Your task to perform on an android device: Go to wifi settings Image 0: 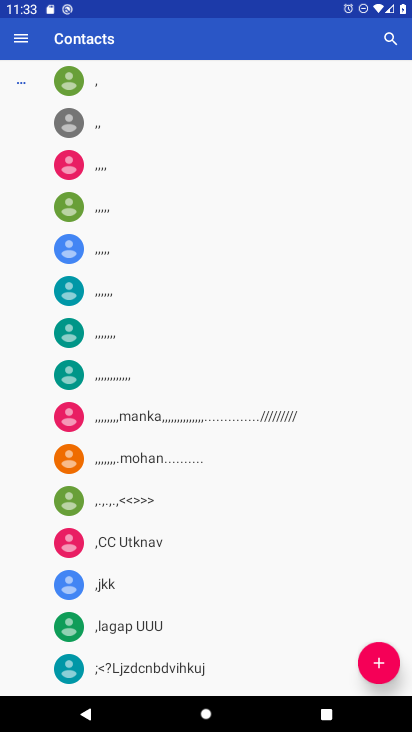
Step 0: press back button
Your task to perform on an android device: Go to wifi settings Image 1: 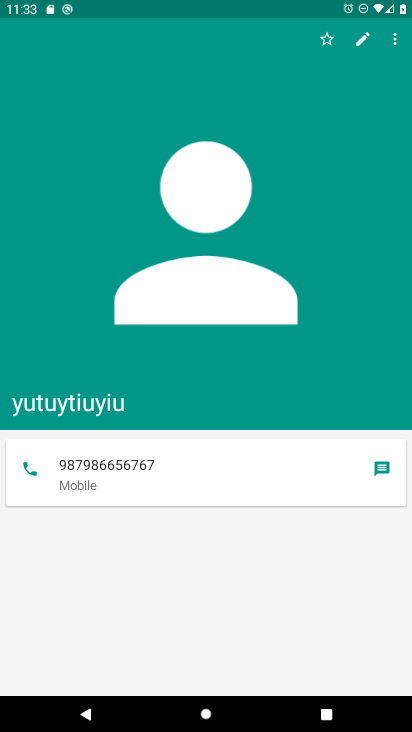
Step 1: press home button
Your task to perform on an android device: Go to wifi settings Image 2: 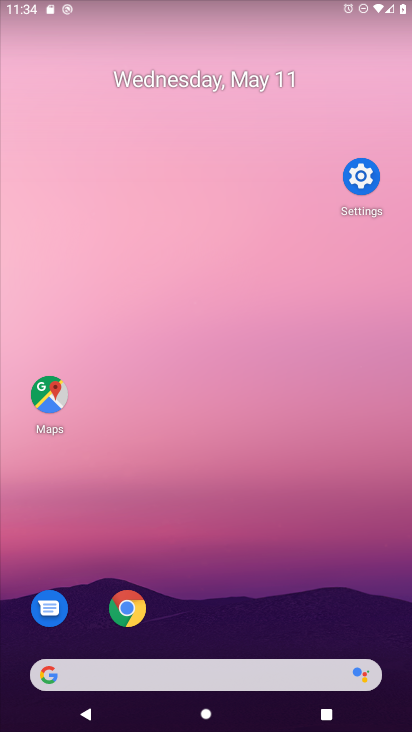
Step 2: drag from (302, 638) to (149, 257)
Your task to perform on an android device: Go to wifi settings Image 3: 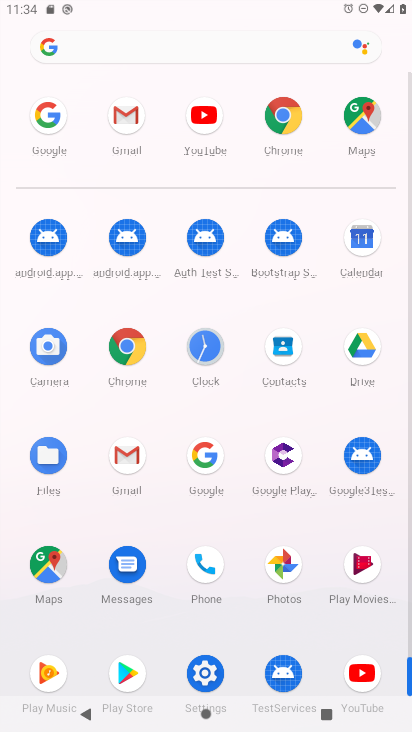
Step 3: click (202, 673)
Your task to perform on an android device: Go to wifi settings Image 4: 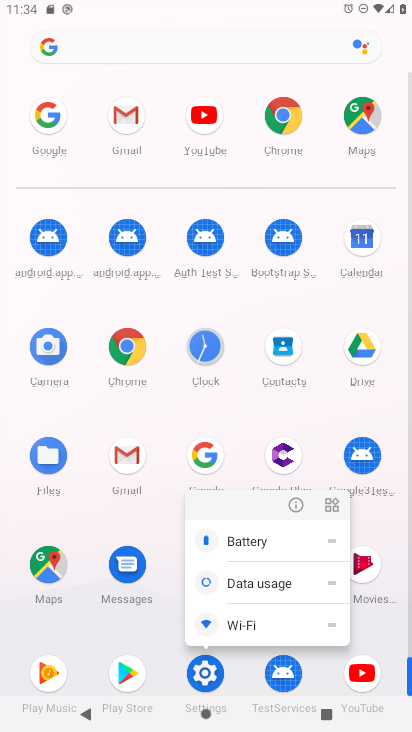
Step 4: drag from (171, 419) to (165, 13)
Your task to perform on an android device: Go to wifi settings Image 5: 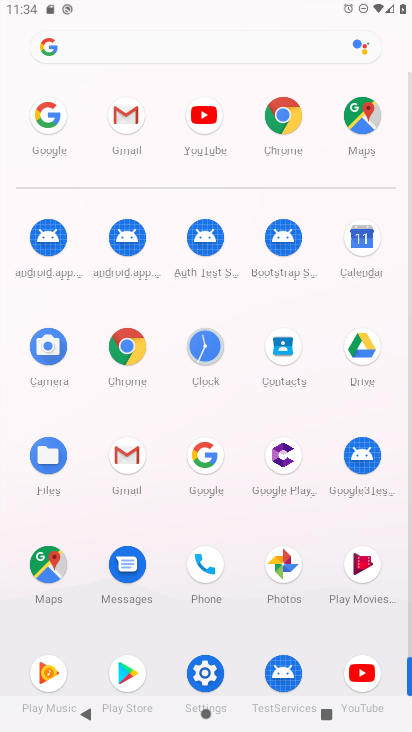
Step 5: drag from (180, 583) to (119, 57)
Your task to perform on an android device: Go to wifi settings Image 6: 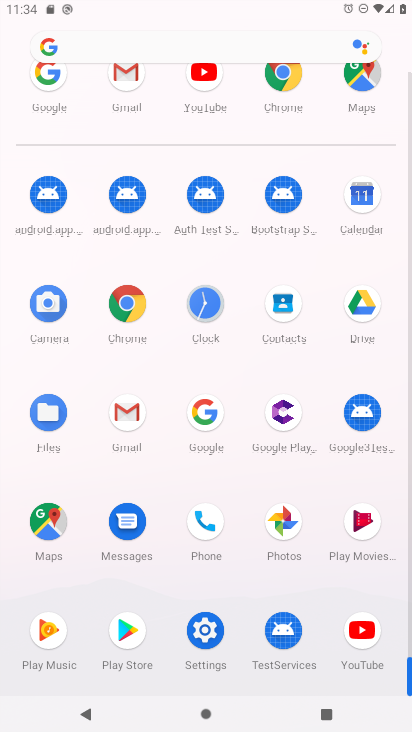
Step 6: drag from (265, 494) to (251, 106)
Your task to perform on an android device: Go to wifi settings Image 7: 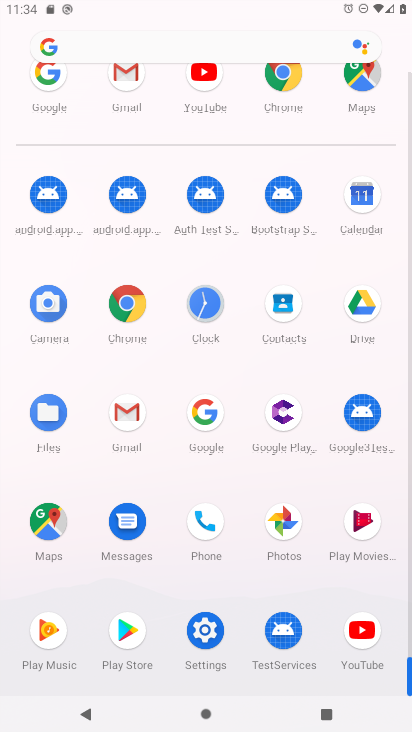
Step 7: click (208, 632)
Your task to perform on an android device: Go to wifi settings Image 8: 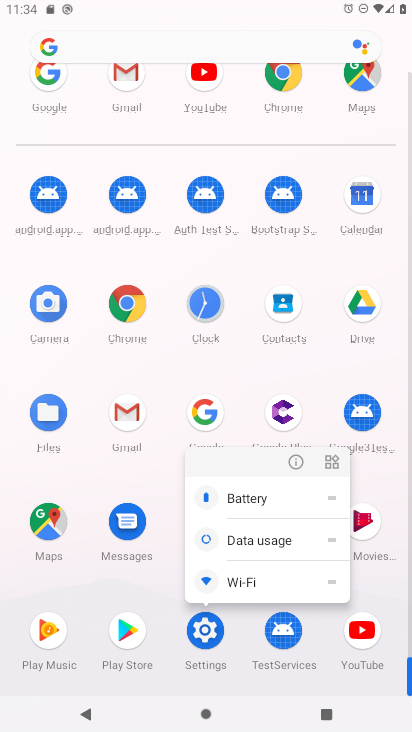
Step 8: click (208, 632)
Your task to perform on an android device: Go to wifi settings Image 9: 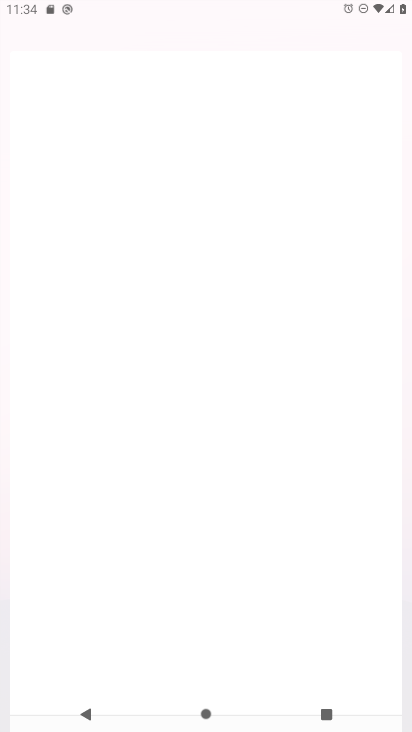
Step 9: click (208, 632)
Your task to perform on an android device: Go to wifi settings Image 10: 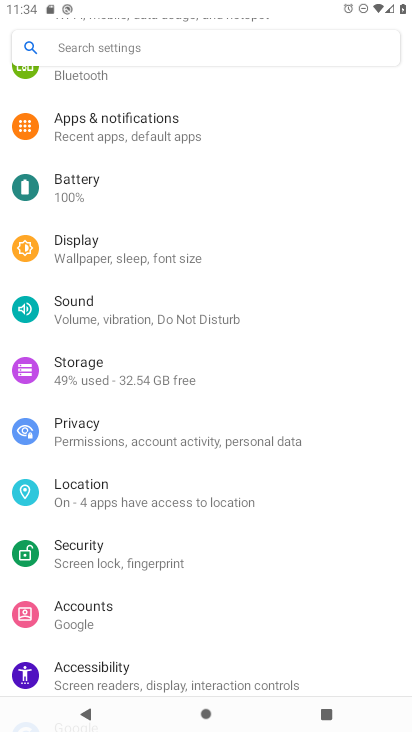
Step 10: drag from (100, 164) to (120, 533)
Your task to perform on an android device: Go to wifi settings Image 11: 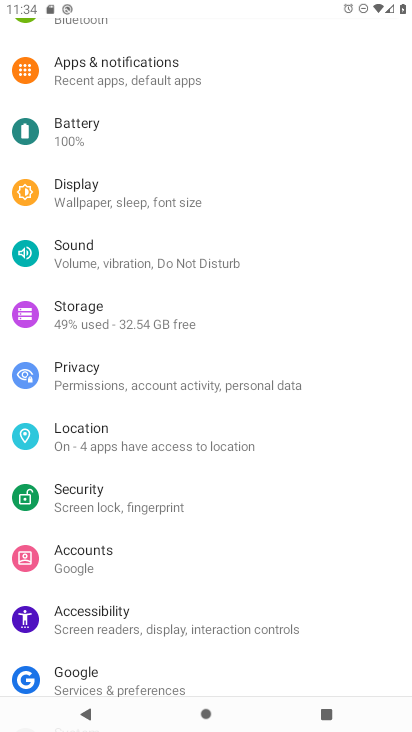
Step 11: click (198, 716)
Your task to perform on an android device: Go to wifi settings Image 12: 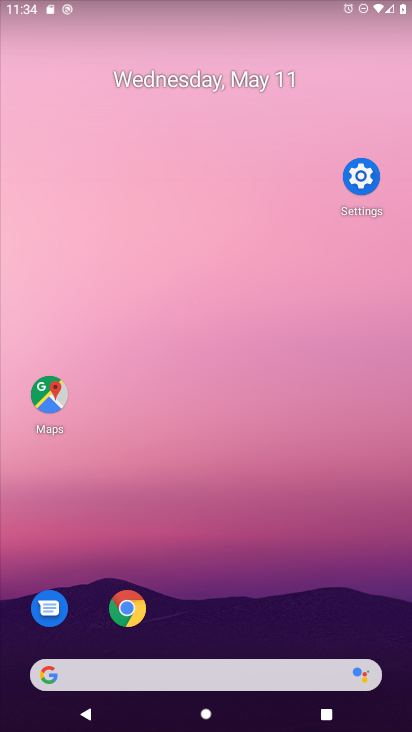
Step 12: drag from (275, 643) to (102, 123)
Your task to perform on an android device: Go to wifi settings Image 13: 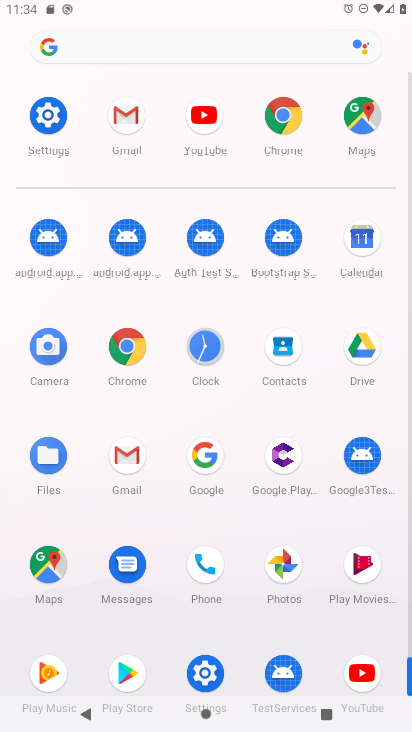
Step 13: click (52, 118)
Your task to perform on an android device: Go to wifi settings Image 14: 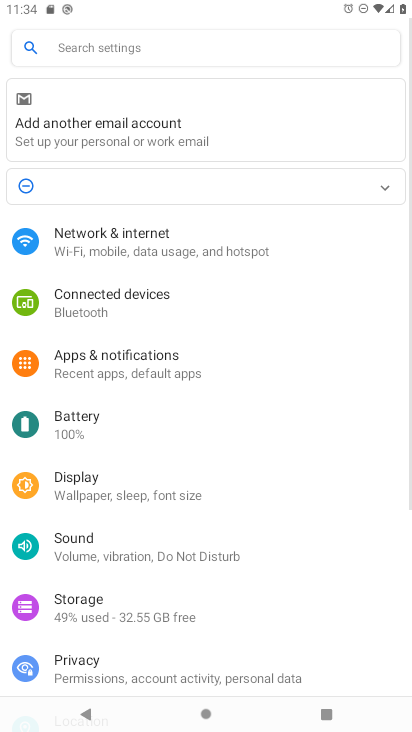
Step 14: click (91, 176)
Your task to perform on an android device: Go to wifi settings Image 15: 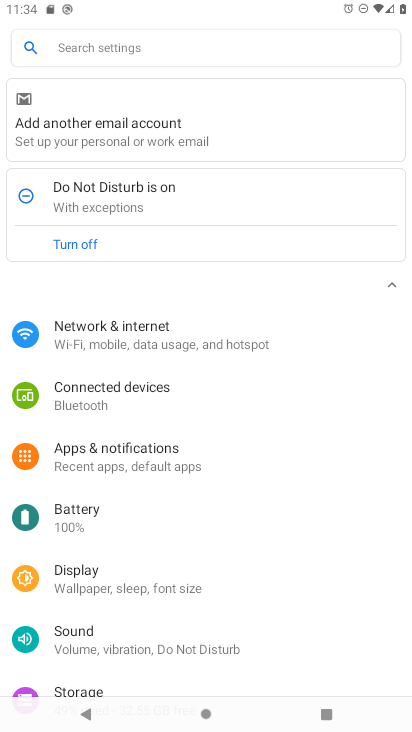
Step 15: click (117, 226)
Your task to perform on an android device: Go to wifi settings Image 16: 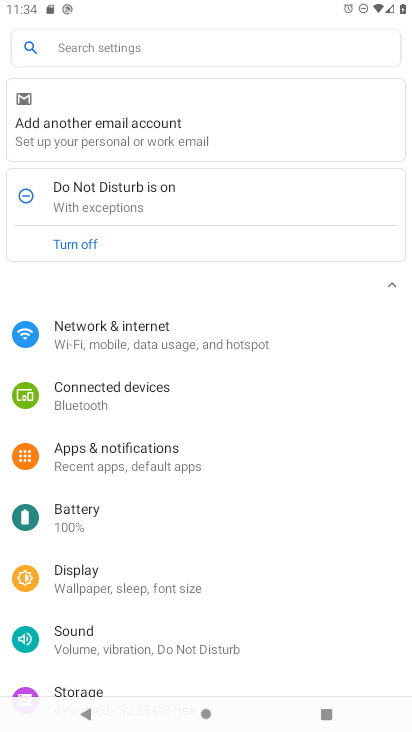
Step 16: click (117, 226)
Your task to perform on an android device: Go to wifi settings Image 17: 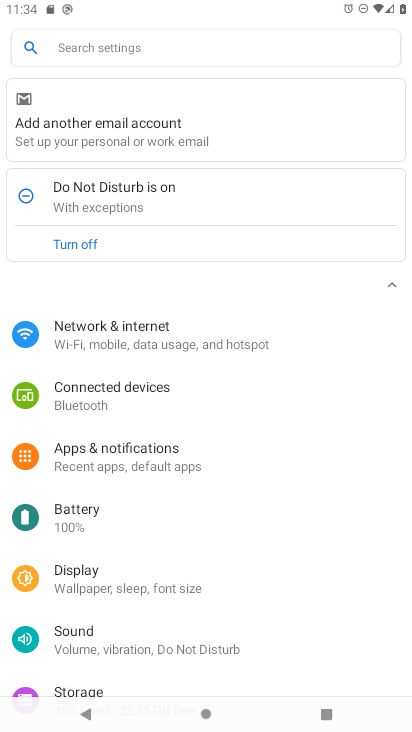
Step 17: click (137, 321)
Your task to perform on an android device: Go to wifi settings Image 18: 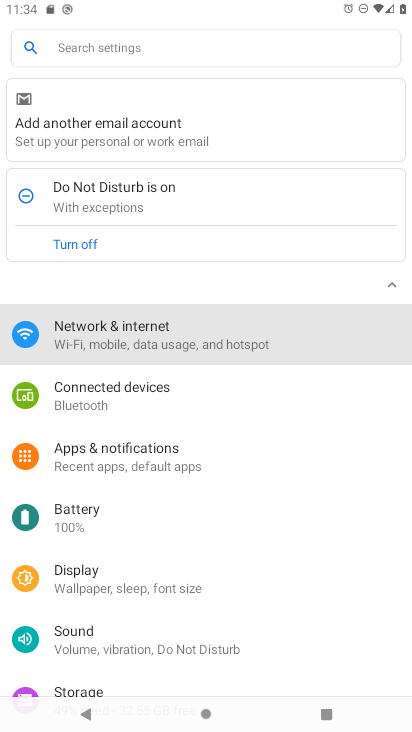
Step 18: click (137, 321)
Your task to perform on an android device: Go to wifi settings Image 19: 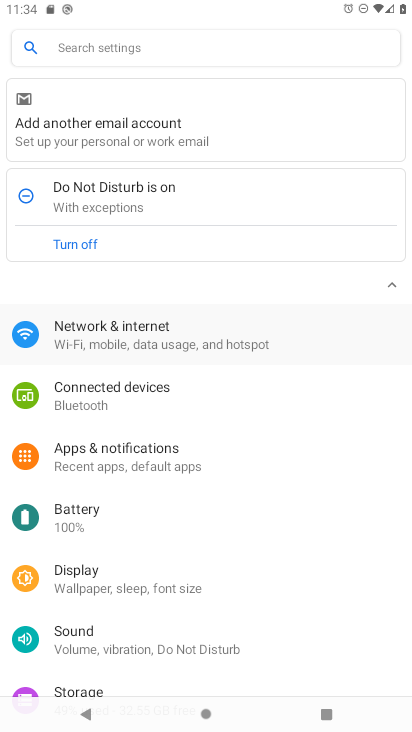
Step 19: click (137, 321)
Your task to perform on an android device: Go to wifi settings Image 20: 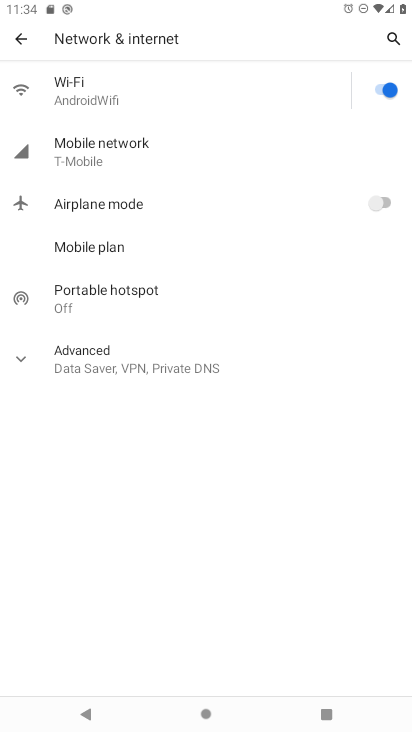
Step 20: task complete